Your task to perform on an android device: clear all cookies in the chrome app Image 0: 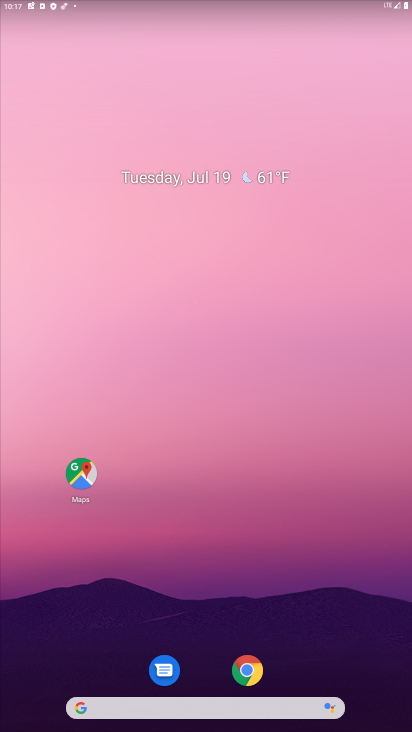
Step 0: click (250, 674)
Your task to perform on an android device: clear all cookies in the chrome app Image 1: 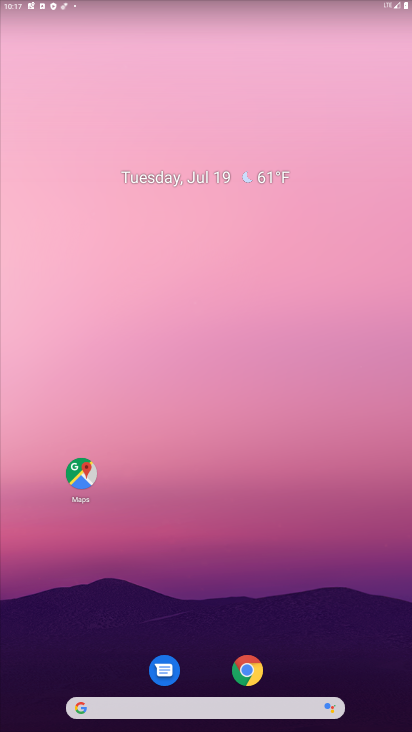
Step 1: click (250, 674)
Your task to perform on an android device: clear all cookies in the chrome app Image 2: 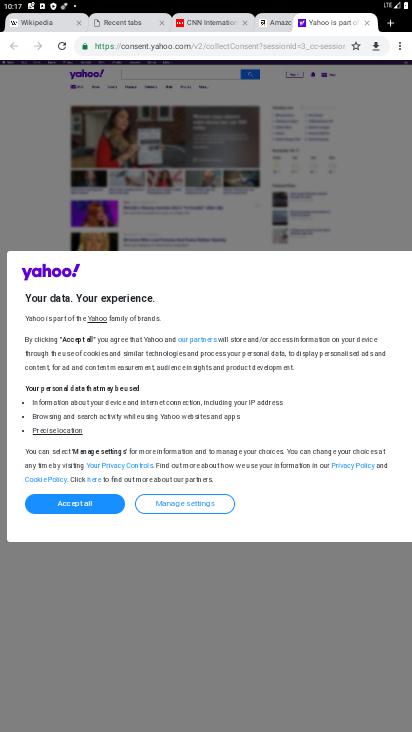
Step 2: click (400, 43)
Your task to perform on an android device: clear all cookies in the chrome app Image 3: 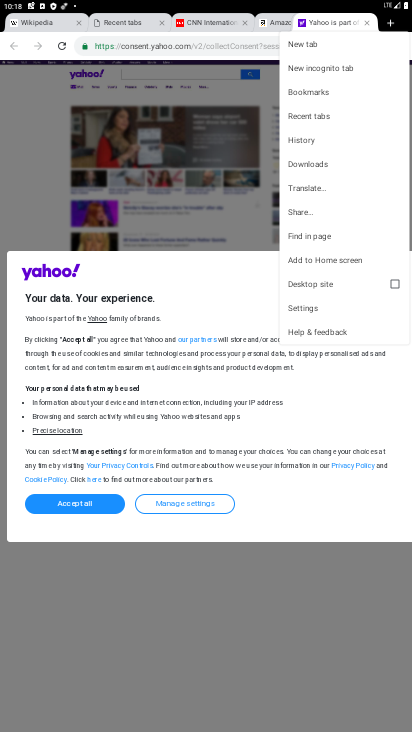
Step 3: click (313, 134)
Your task to perform on an android device: clear all cookies in the chrome app Image 4: 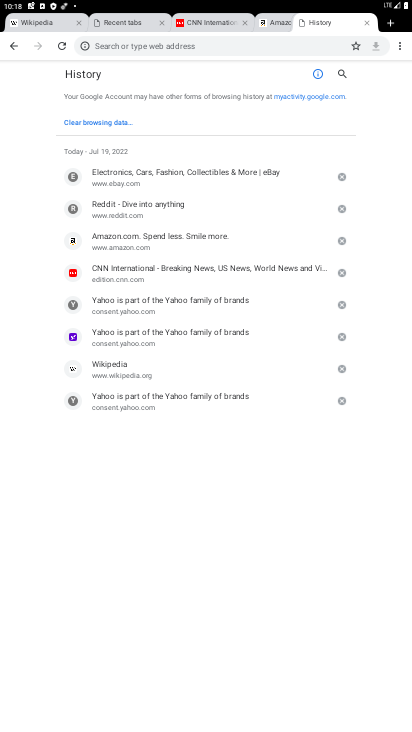
Step 4: click (98, 120)
Your task to perform on an android device: clear all cookies in the chrome app Image 5: 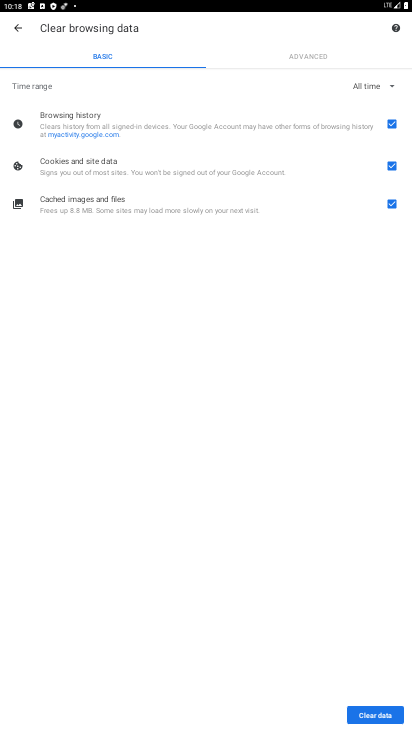
Step 5: click (356, 718)
Your task to perform on an android device: clear all cookies in the chrome app Image 6: 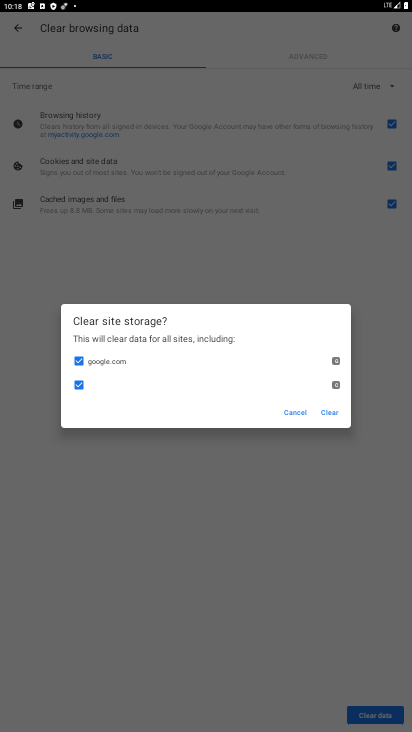
Step 6: click (331, 406)
Your task to perform on an android device: clear all cookies in the chrome app Image 7: 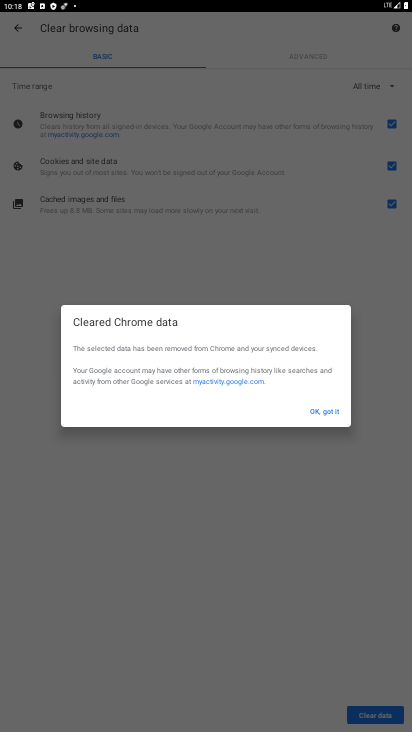
Step 7: task complete